Your task to perform on an android device: View the shopping cart on target.com. Add "alienware area 51" to the cart on target.com, then select checkout. Image 0: 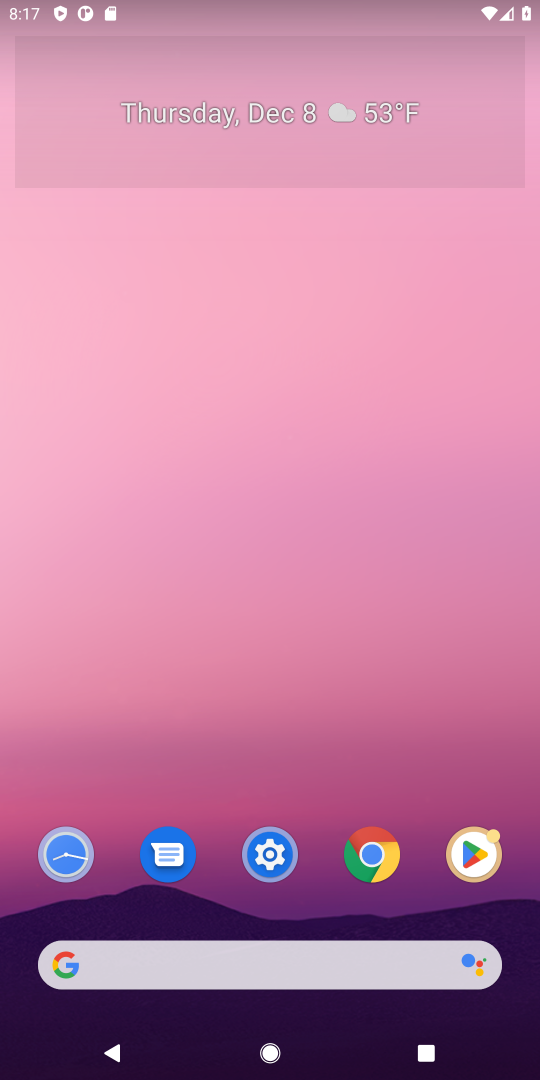
Step 0: press home button
Your task to perform on an android device: View the shopping cart on target.com. Add "alienware area 51" to the cart on target.com, then select checkout. Image 1: 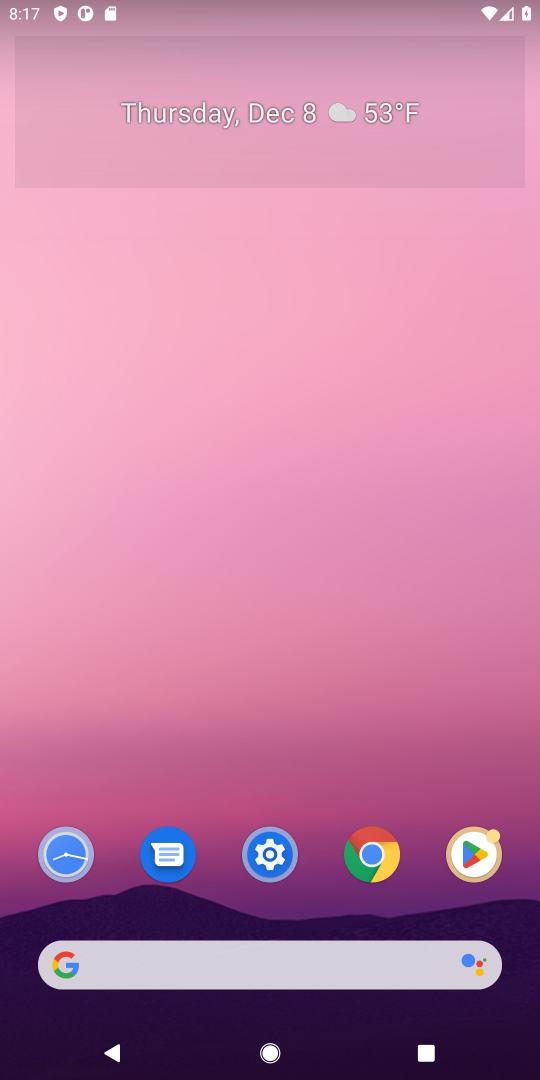
Step 1: click (93, 961)
Your task to perform on an android device: View the shopping cart on target.com. Add "alienware area 51" to the cart on target.com, then select checkout. Image 2: 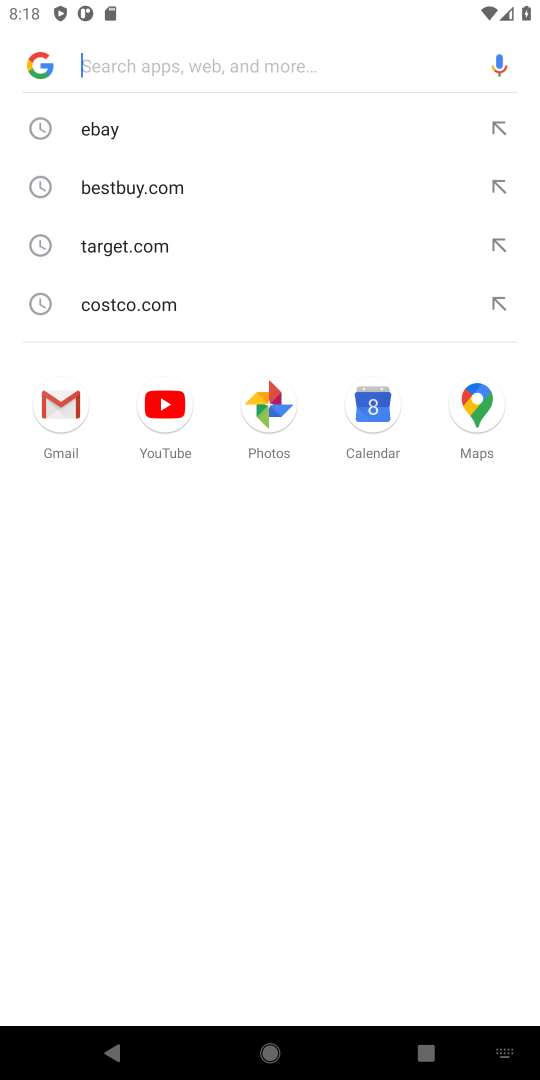
Step 2: type "target.com"
Your task to perform on an android device: View the shopping cart on target.com. Add "alienware area 51" to the cart on target.com, then select checkout. Image 3: 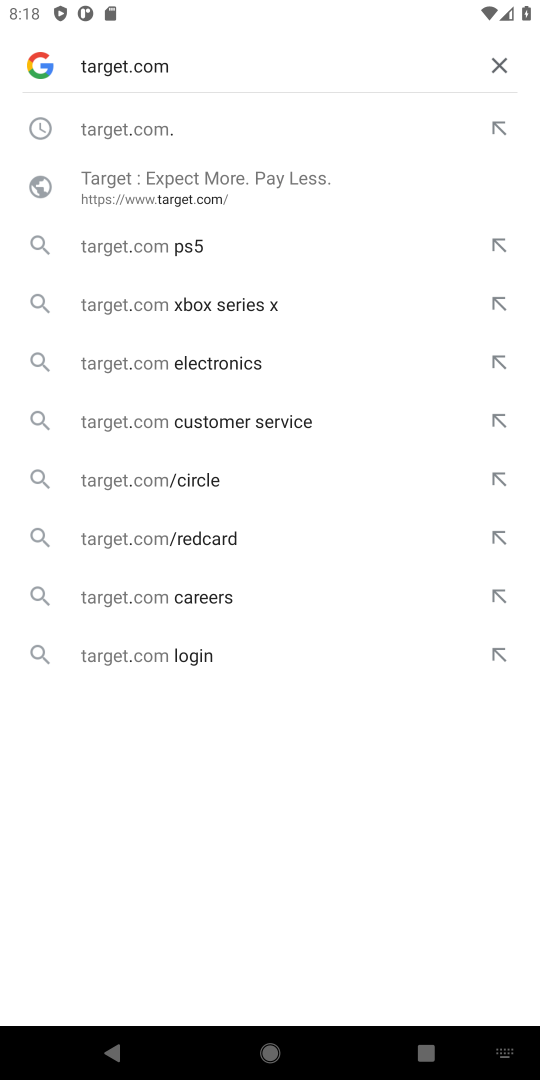
Step 3: press enter
Your task to perform on an android device: View the shopping cart on target.com. Add "alienware area 51" to the cart on target.com, then select checkout. Image 4: 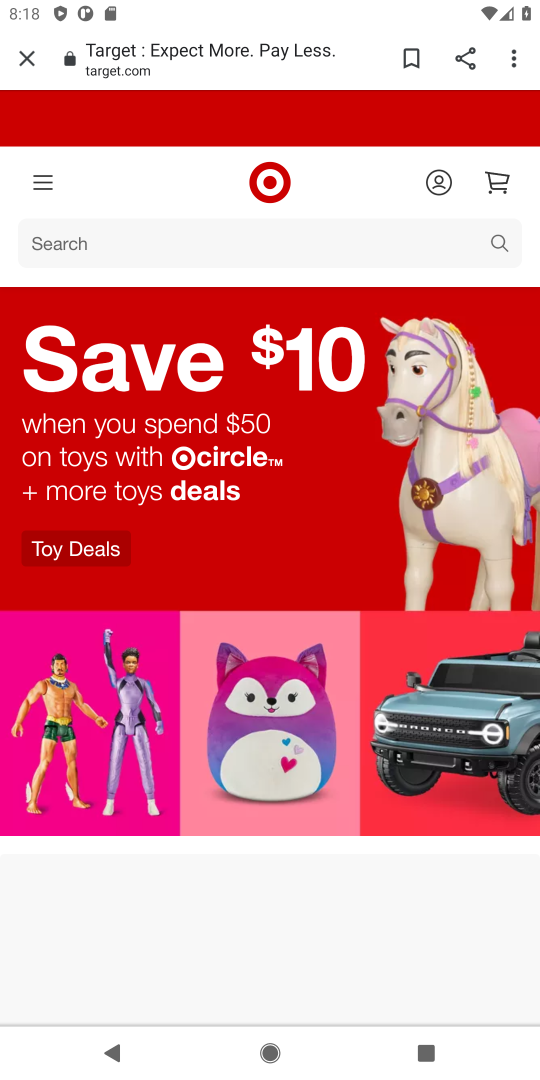
Step 4: click (490, 183)
Your task to perform on an android device: View the shopping cart on target.com. Add "alienware area 51" to the cart on target.com, then select checkout. Image 5: 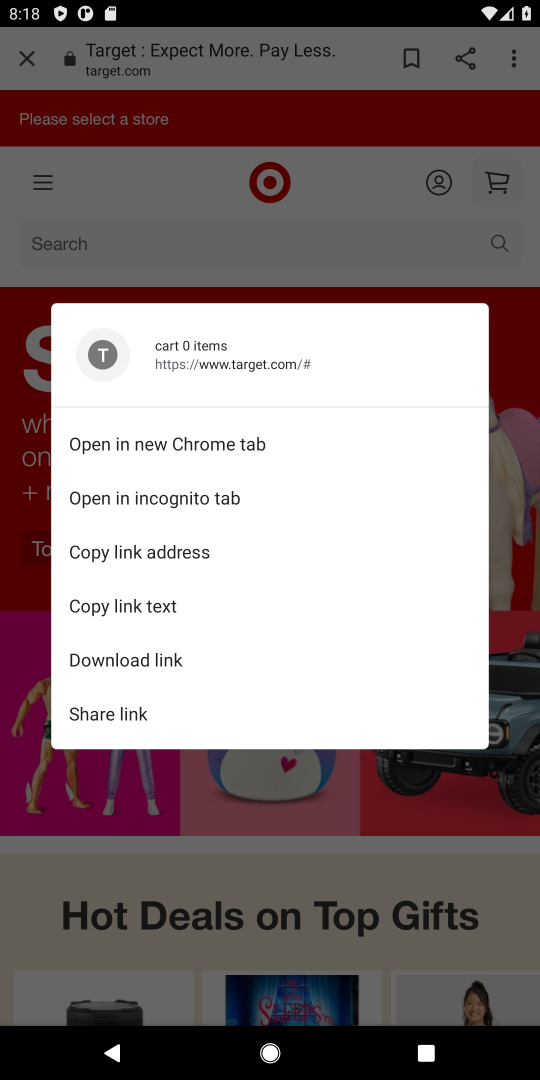
Step 5: click (496, 825)
Your task to perform on an android device: View the shopping cart on target.com. Add "alienware area 51" to the cart on target.com, then select checkout. Image 6: 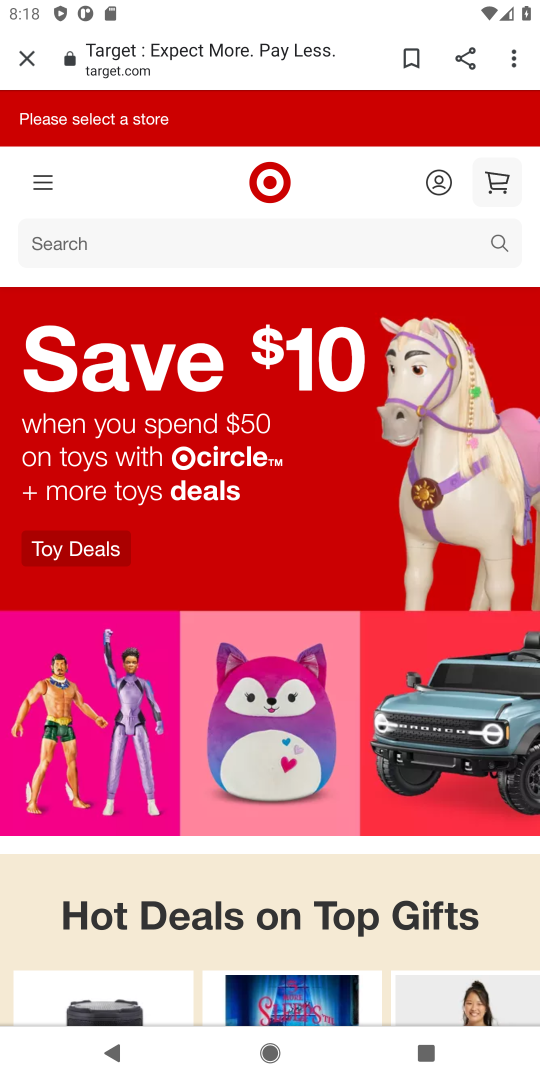
Step 6: click (487, 173)
Your task to perform on an android device: View the shopping cart on target.com. Add "alienware area 51" to the cart on target.com, then select checkout. Image 7: 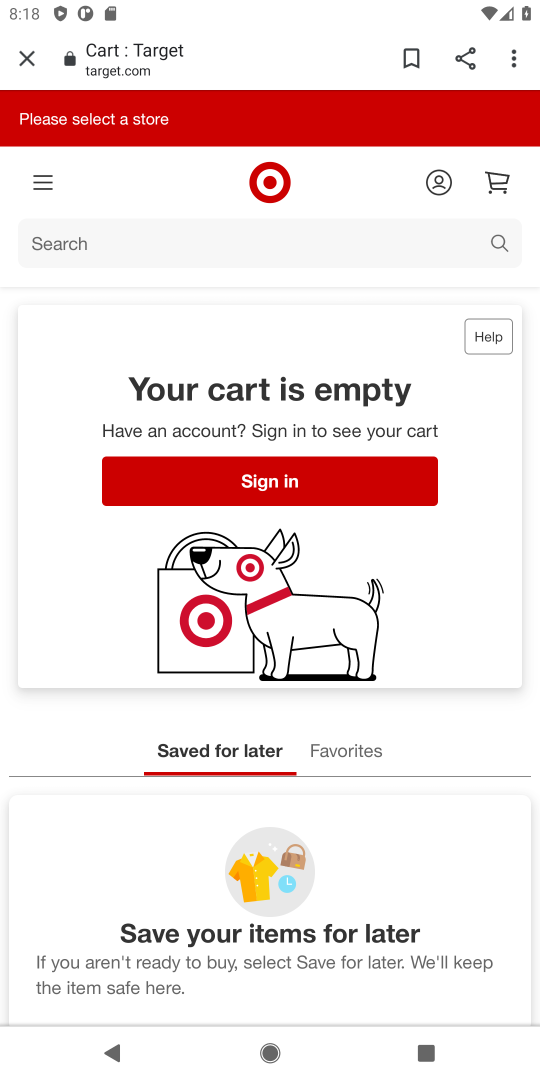
Step 7: click (77, 235)
Your task to perform on an android device: View the shopping cart on target.com. Add "alienware area 51" to the cart on target.com, then select checkout. Image 8: 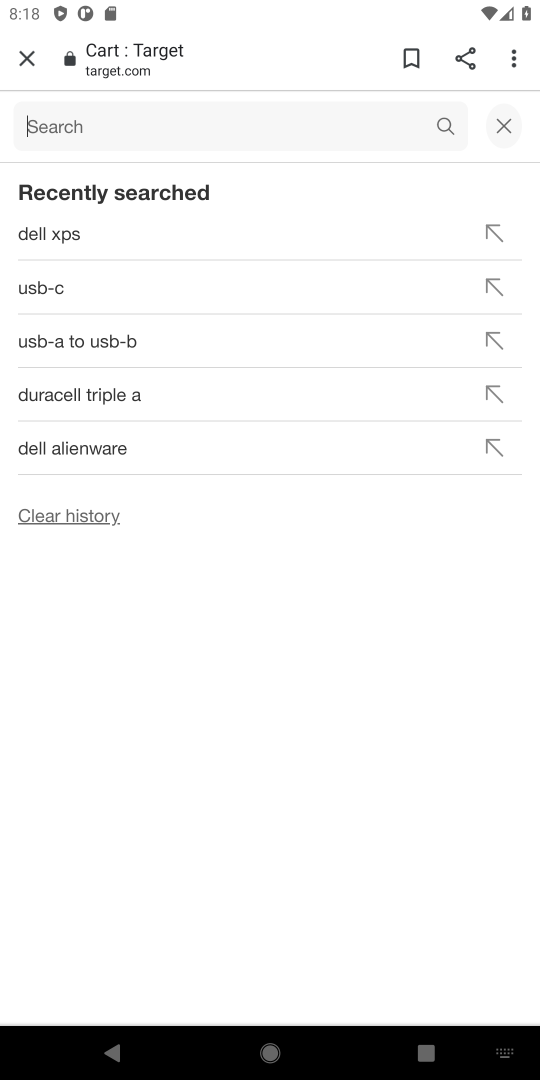
Step 8: type "alienware area 51"
Your task to perform on an android device: View the shopping cart on target.com. Add "alienware area 51" to the cart on target.com, then select checkout. Image 9: 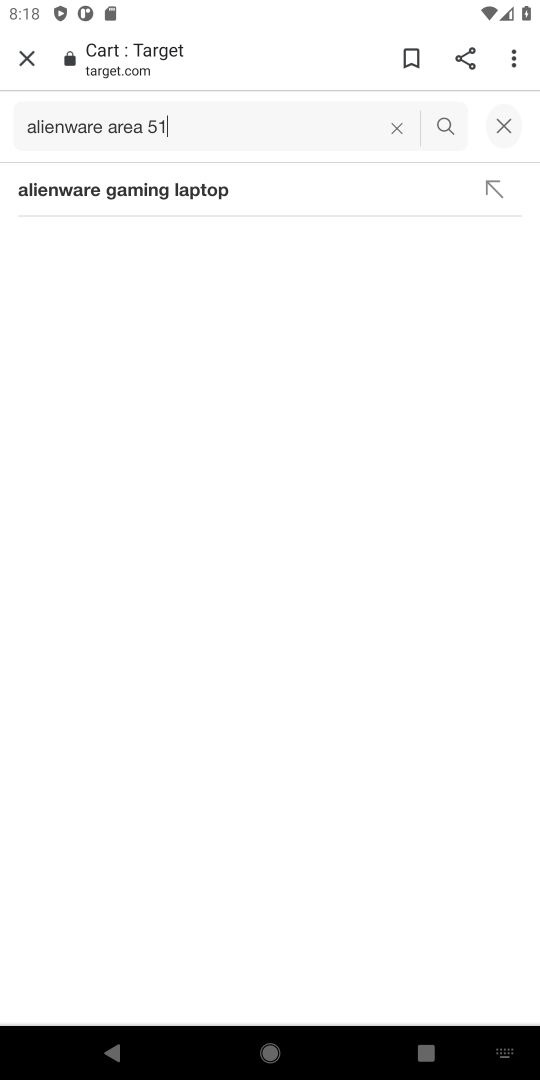
Step 9: press enter
Your task to perform on an android device: View the shopping cart on target.com. Add "alienware area 51" to the cart on target.com, then select checkout. Image 10: 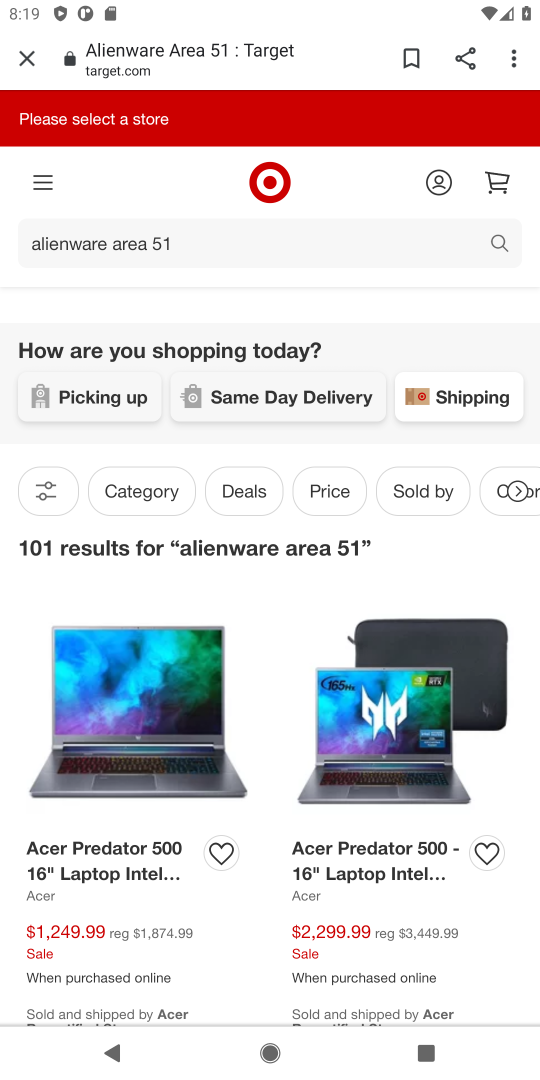
Step 10: task complete